Your task to perform on an android device: Open privacy settings Image 0: 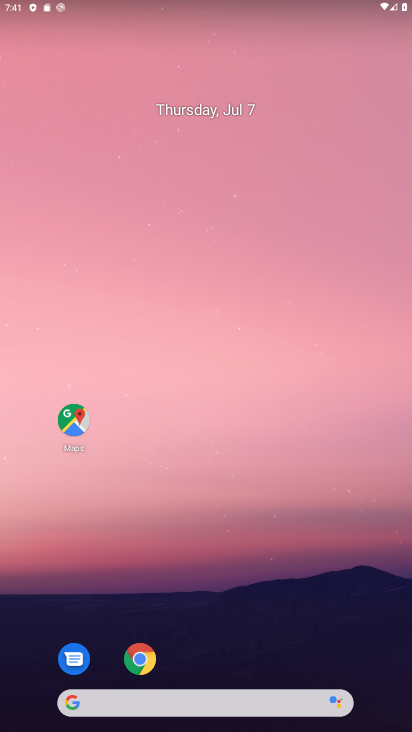
Step 0: drag from (200, 676) to (233, 117)
Your task to perform on an android device: Open privacy settings Image 1: 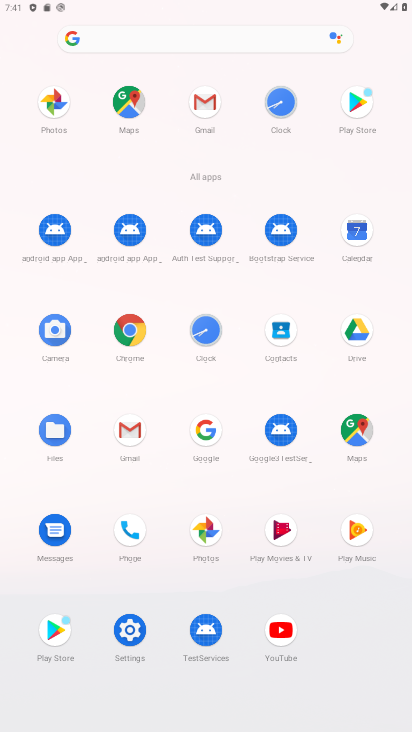
Step 1: click (121, 643)
Your task to perform on an android device: Open privacy settings Image 2: 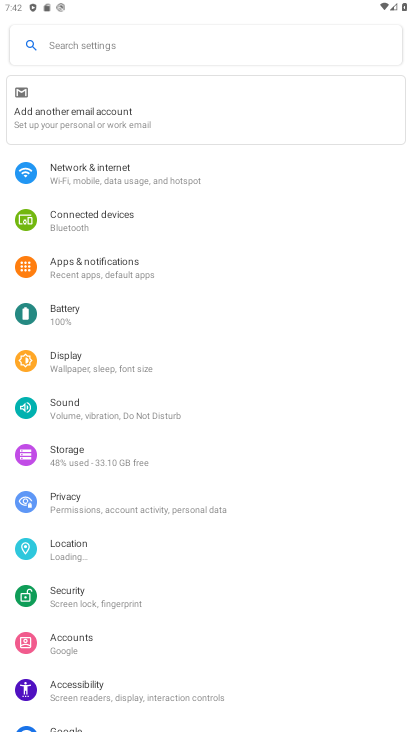
Step 2: click (114, 372)
Your task to perform on an android device: Open privacy settings Image 3: 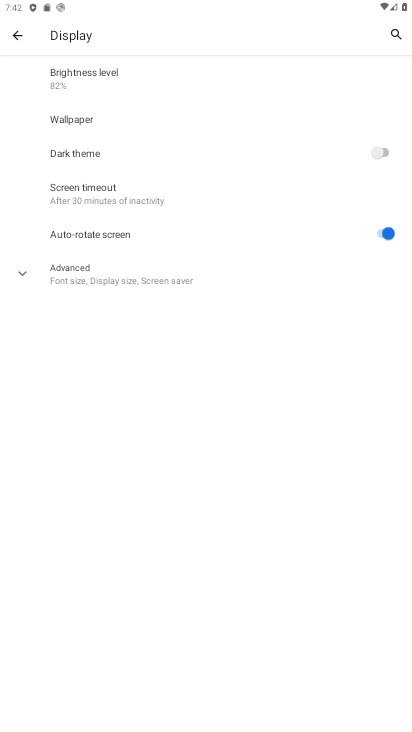
Step 3: task complete